Your task to perform on an android device: Find coffee shops on Maps Image 0: 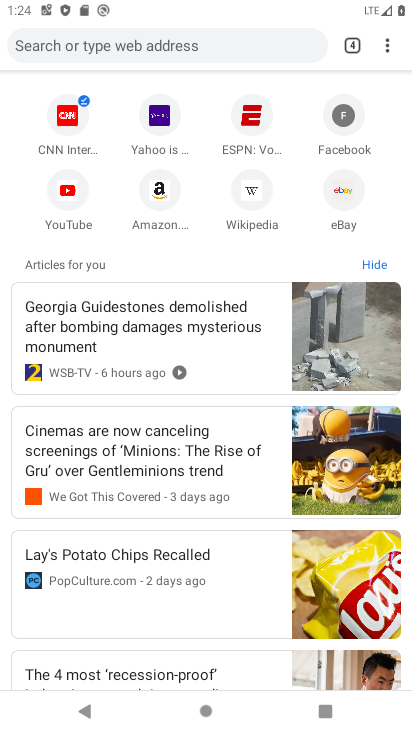
Step 0: press home button
Your task to perform on an android device: Find coffee shops on Maps Image 1: 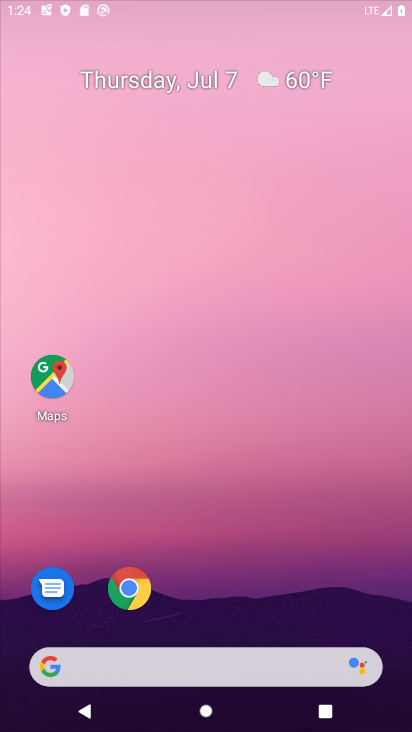
Step 1: drag from (196, 637) to (217, 181)
Your task to perform on an android device: Find coffee shops on Maps Image 2: 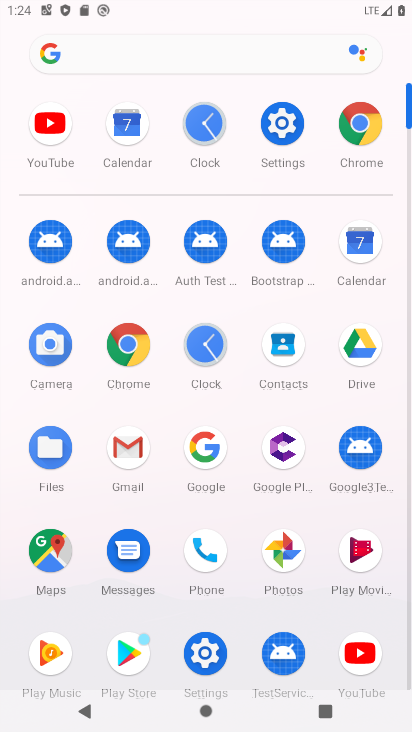
Step 2: click (48, 546)
Your task to perform on an android device: Find coffee shops on Maps Image 3: 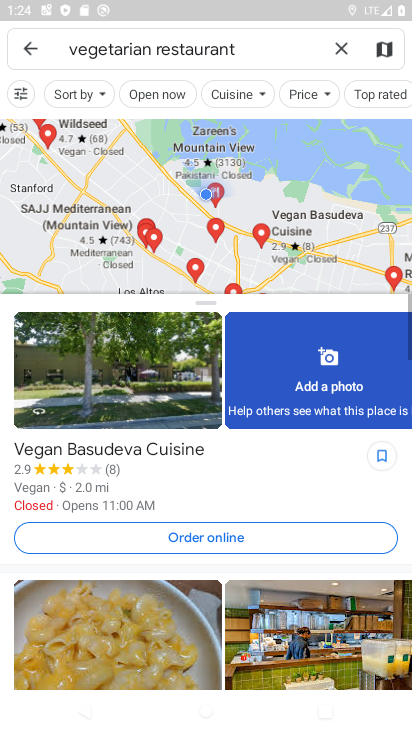
Step 3: click (341, 48)
Your task to perform on an android device: Find coffee shops on Maps Image 4: 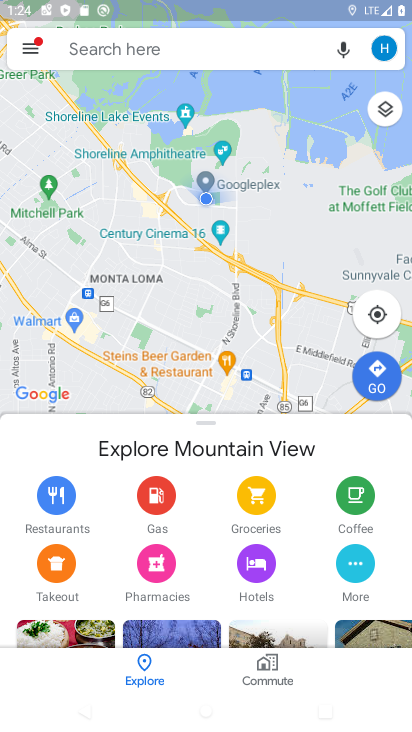
Step 4: click (154, 36)
Your task to perform on an android device: Find coffee shops on Maps Image 5: 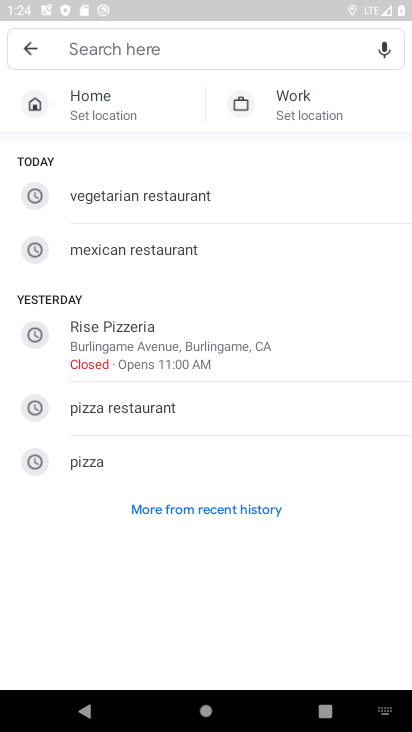
Step 5: type "coffee shops   "
Your task to perform on an android device: Find coffee shops on Maps Image 6: 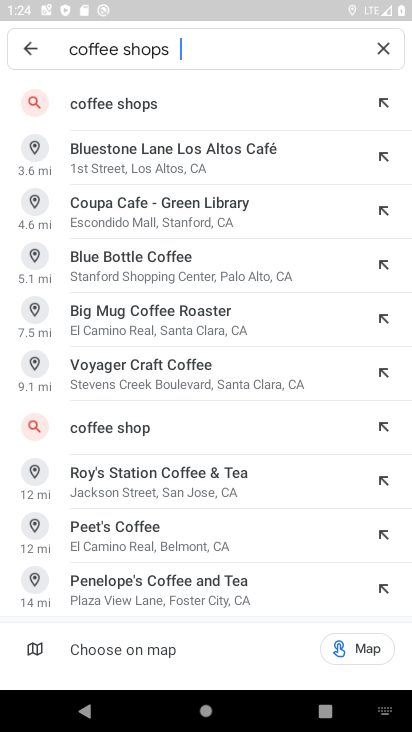
Step 6: click (173, 97)
Your task to perform on an android device: Find coffee shops on Maps Image 7: 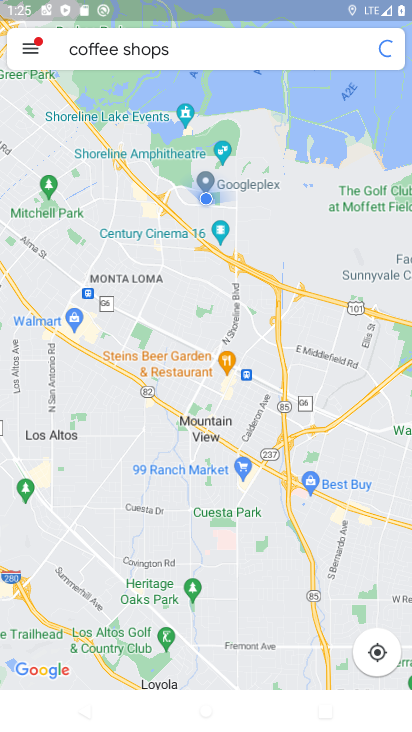
Step 7: task complete